Your task to perform on an android device: add a contact Image 0: 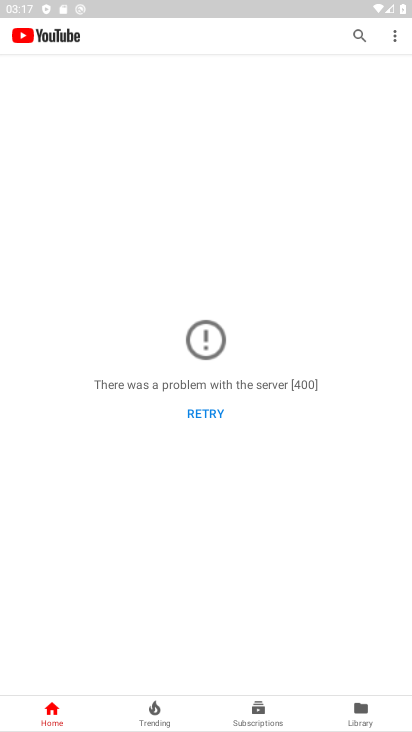
Step 0: press home button
Your task to perform on an android device: add a contact Image 1: 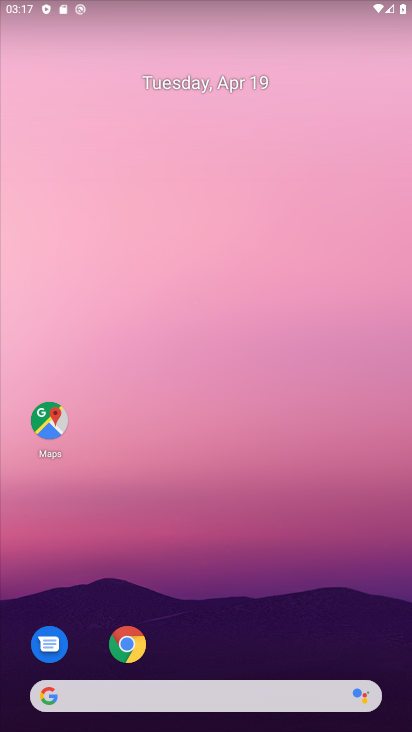
Step 1: drag from (356, 629) to (314, 161)
Your task to perform on an android device: add a contact Image 2: 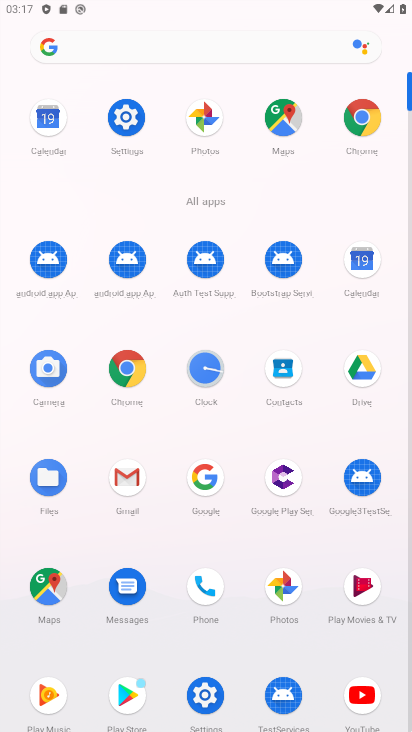
Step 2: click (279, 362)
Your task to perform on an android device: add a contact Image 3: 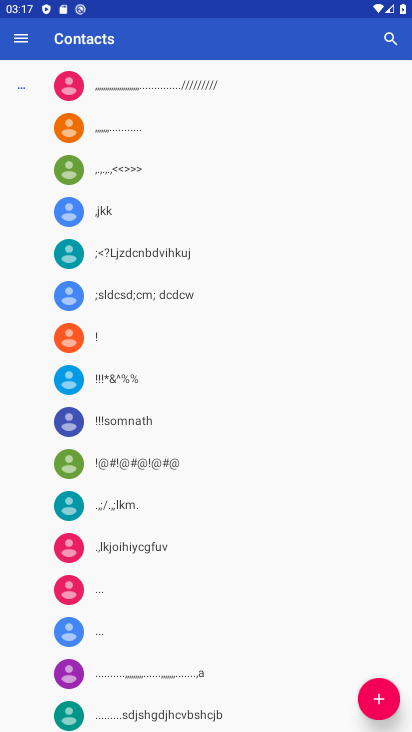
Step 3: click (375, 695)
Your task to perform on an android device: add a contact Image 4: 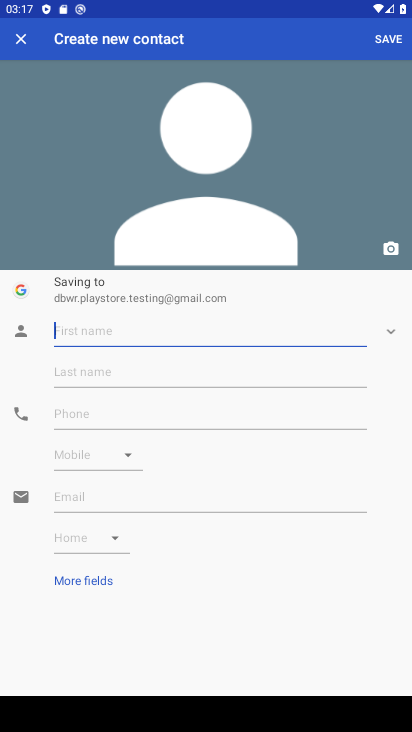
Step 4: type "artryugh"
Your task to perform on an android device: add a contact Image 5: 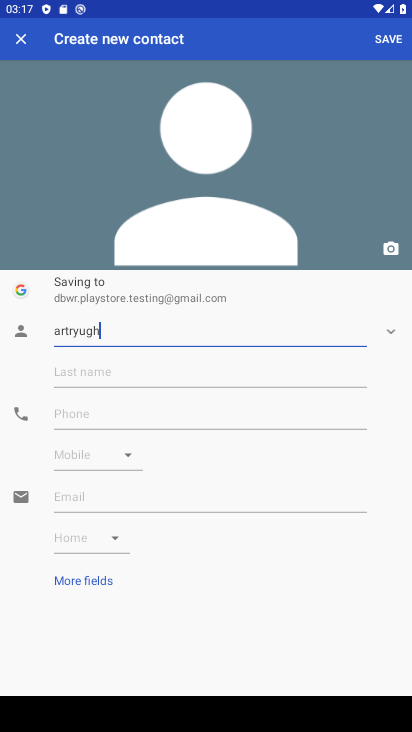
Step 5: click (83, 416)
Your task to perform on an android device: add a contact Image 6: 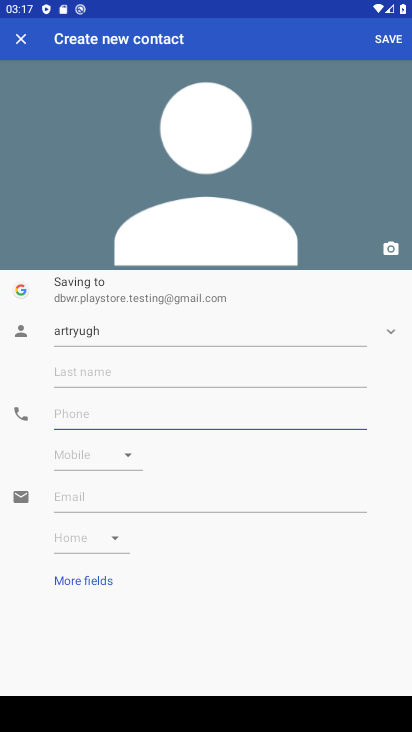
Step 6: type "089052146"
Your task to perform on an android device: add a contact Image 7: 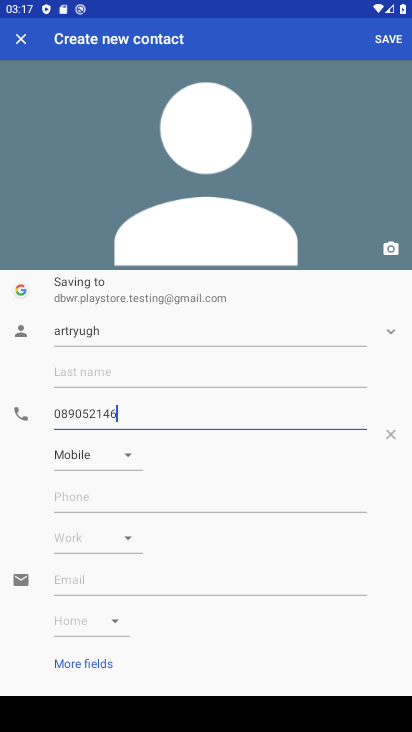
Step 7: click (116, 458)
Your task to perform on an android device: add a contact Image 8: 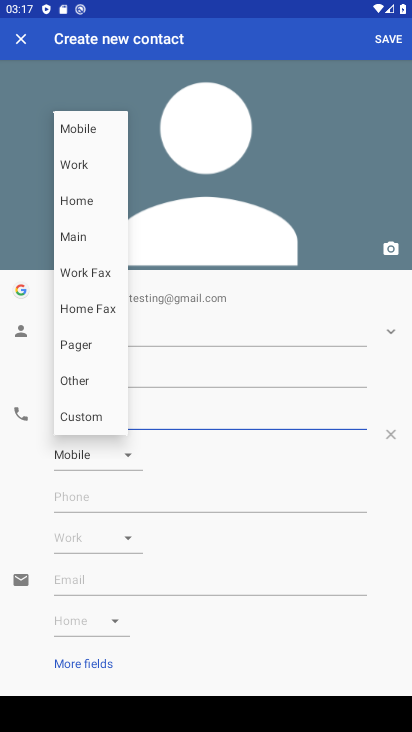
Step 8: click (72, 207)
Your task to perform on an android device: add a contact Image 9: 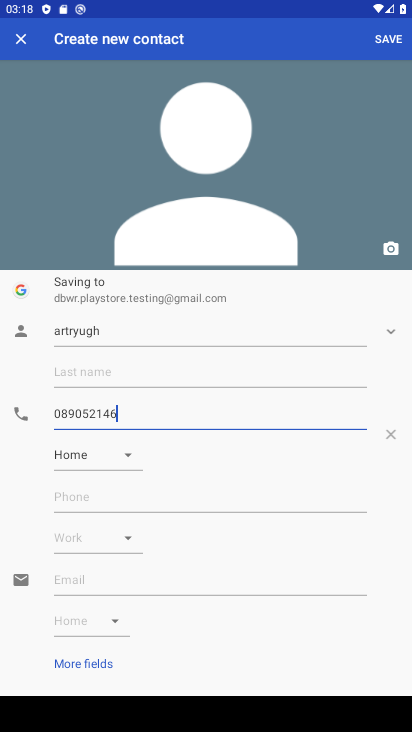
Step 9: click (381, 38)
Your task to perform on an android device: add a contact Image 10: 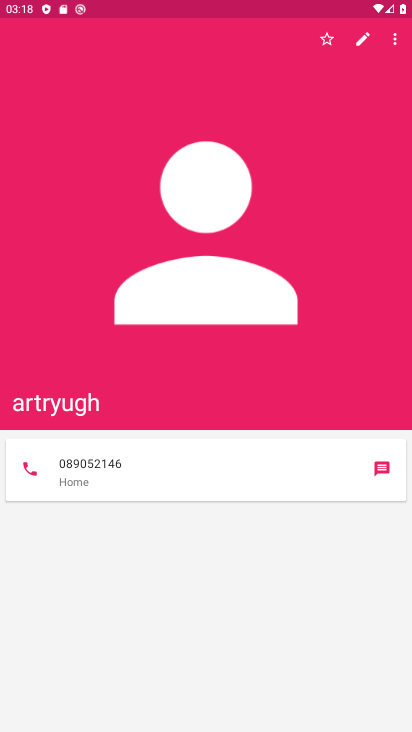
Step 10: task complete